Your task to perform on an android device: Open calendar and show me the fourth week of next month Image 0: 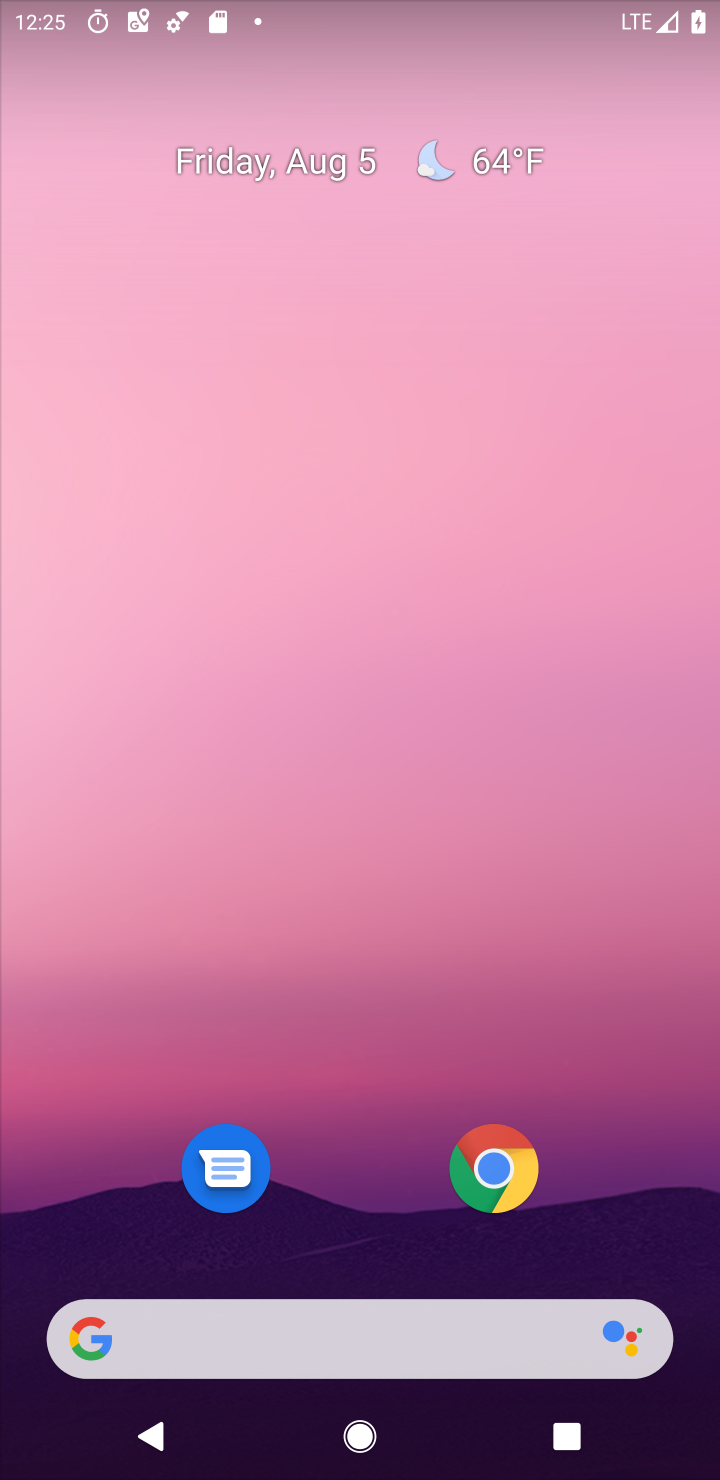
Step 0: drag from (326, 1232) to (351, 59)
Your task to perform on an android device: Open calendar and show me the fourth week of next month Image 1: 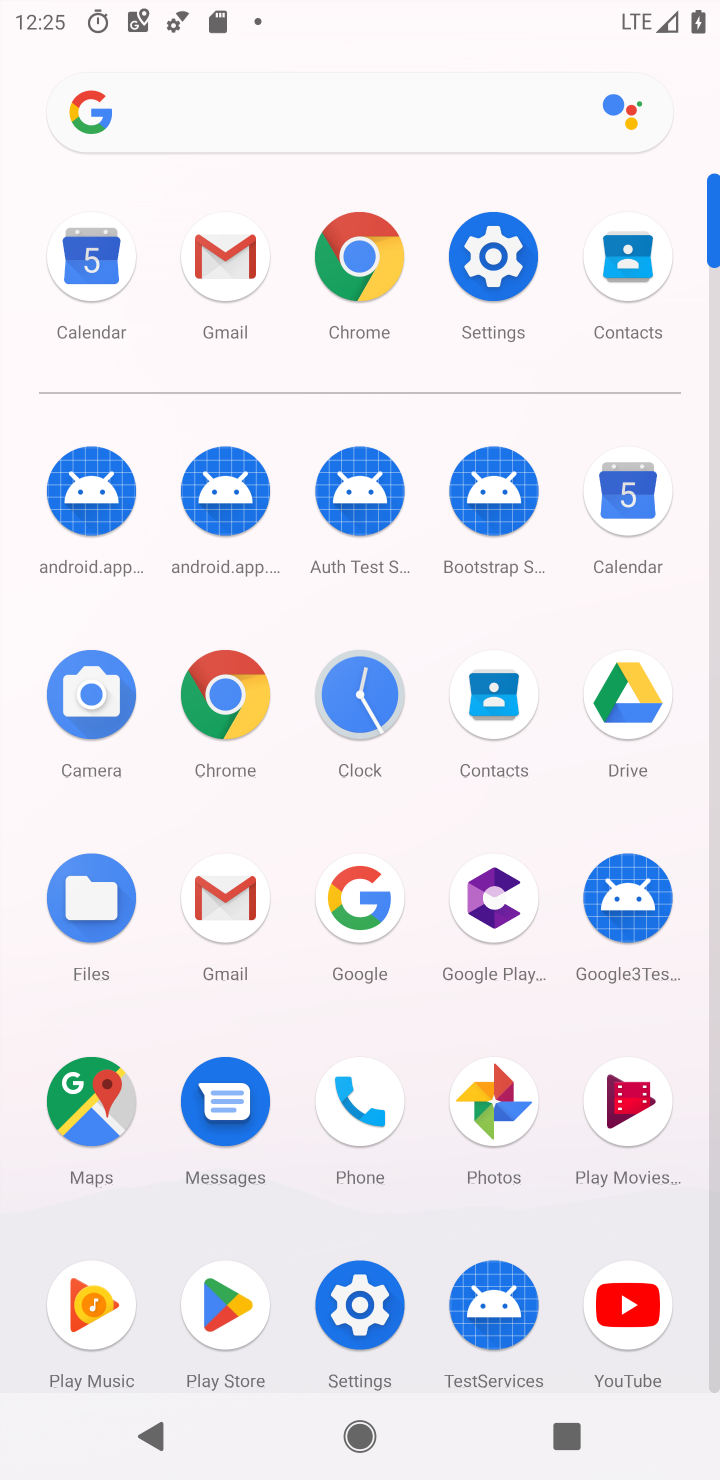
Step 1: click (613, 507)
Your task to perform on an android device: Open calendar and show me the fourth week of next month Image 2: 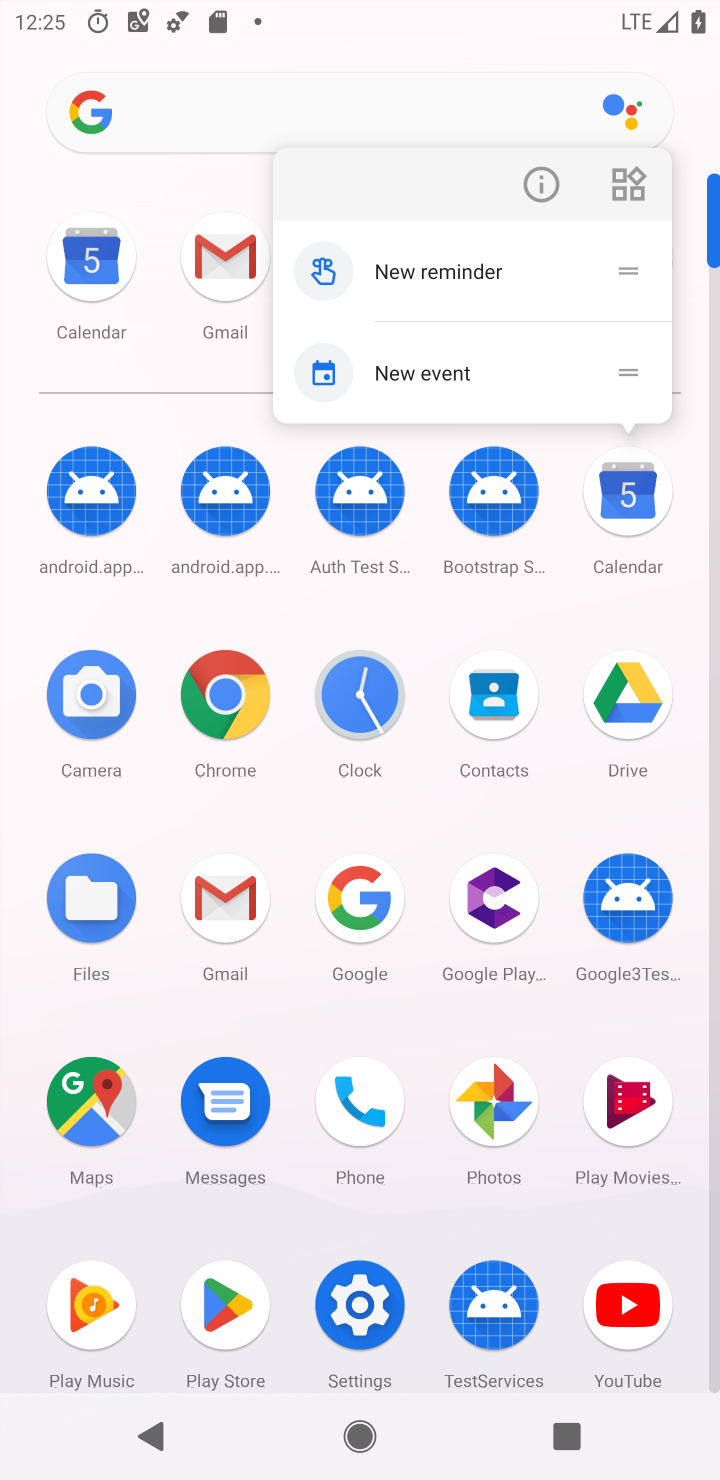
Step 2: click (631, 541)
Your task to perform on an android device: Open calendar and show me the fourth week of next month Image 3: 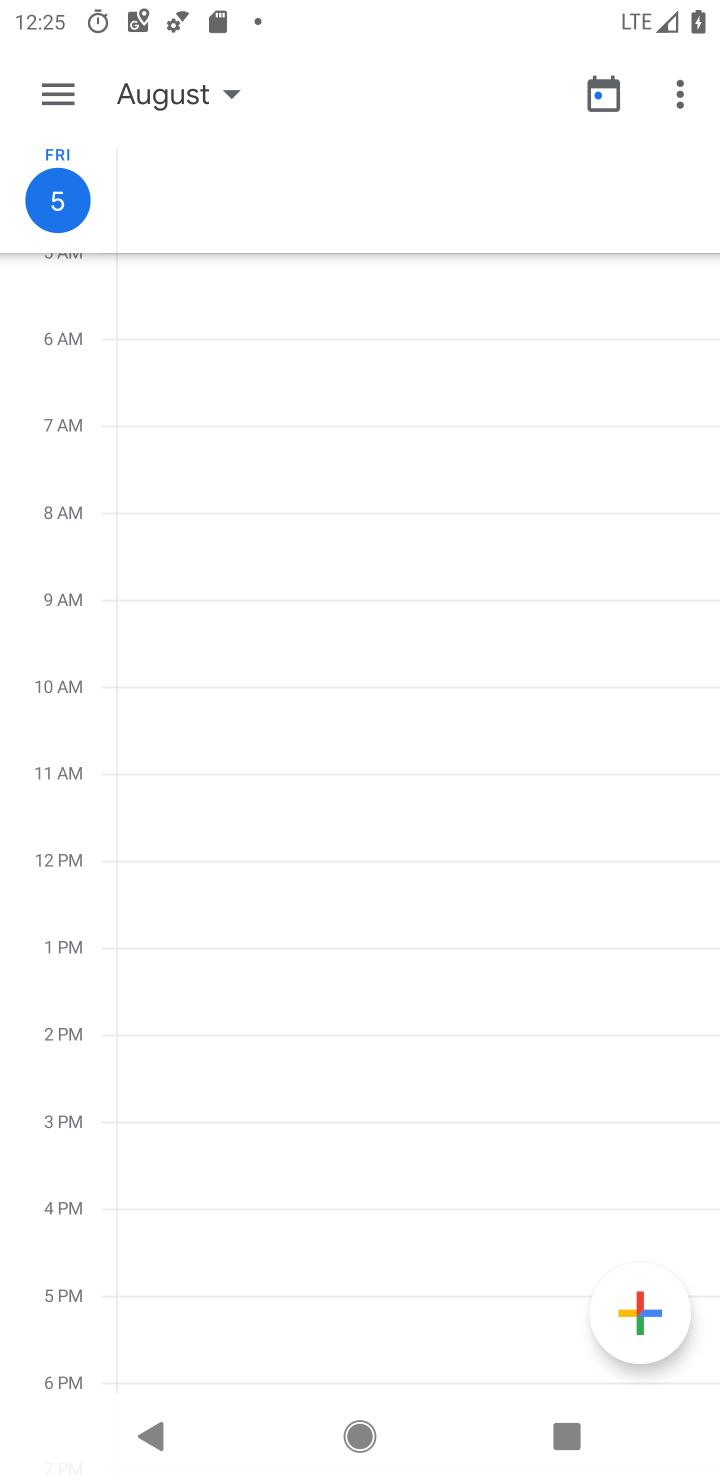
Step 3: click (629, 541)
Your task to perform on an android device: Open calendar and show me the fourth week of next month Image 4: 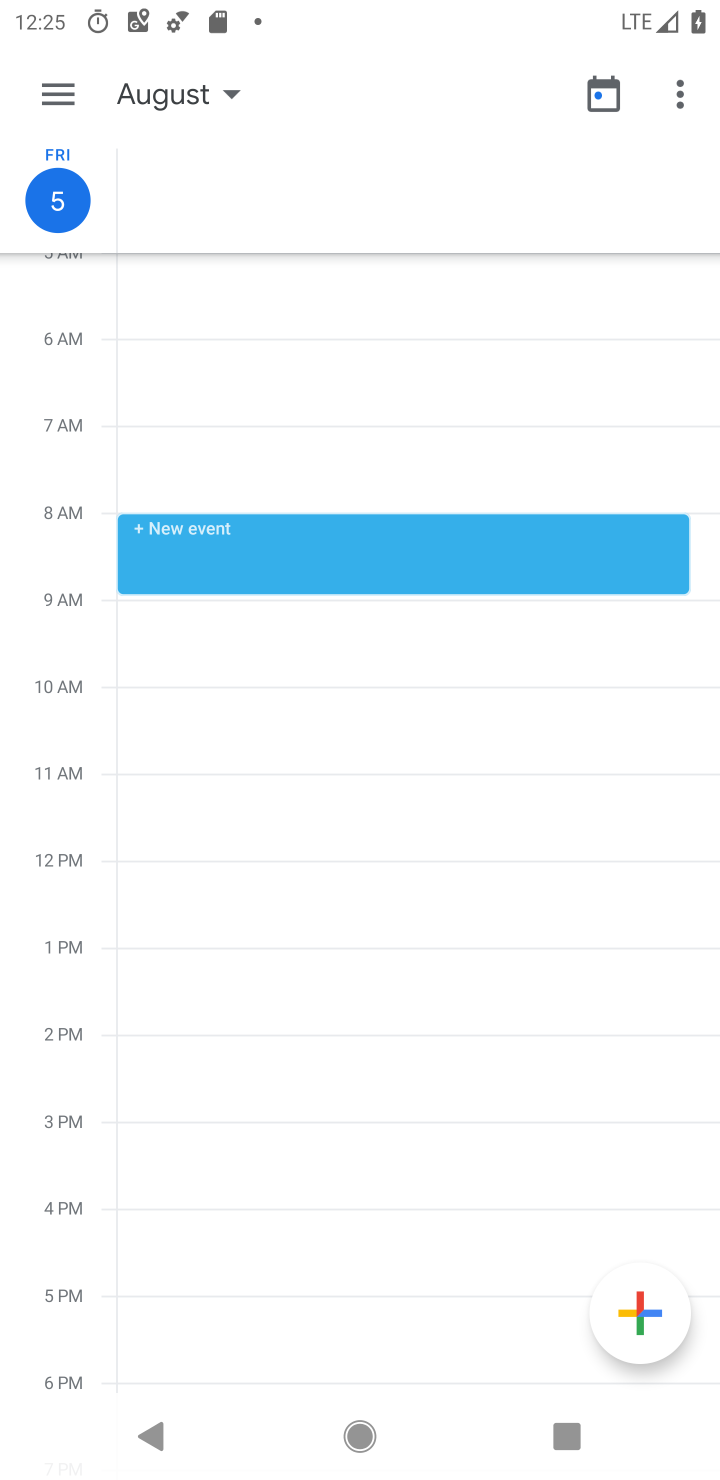
Step 4: click (58, 96)
Your task to perform on an android device: Open calendar and show me the fourth week of next month Image 5: 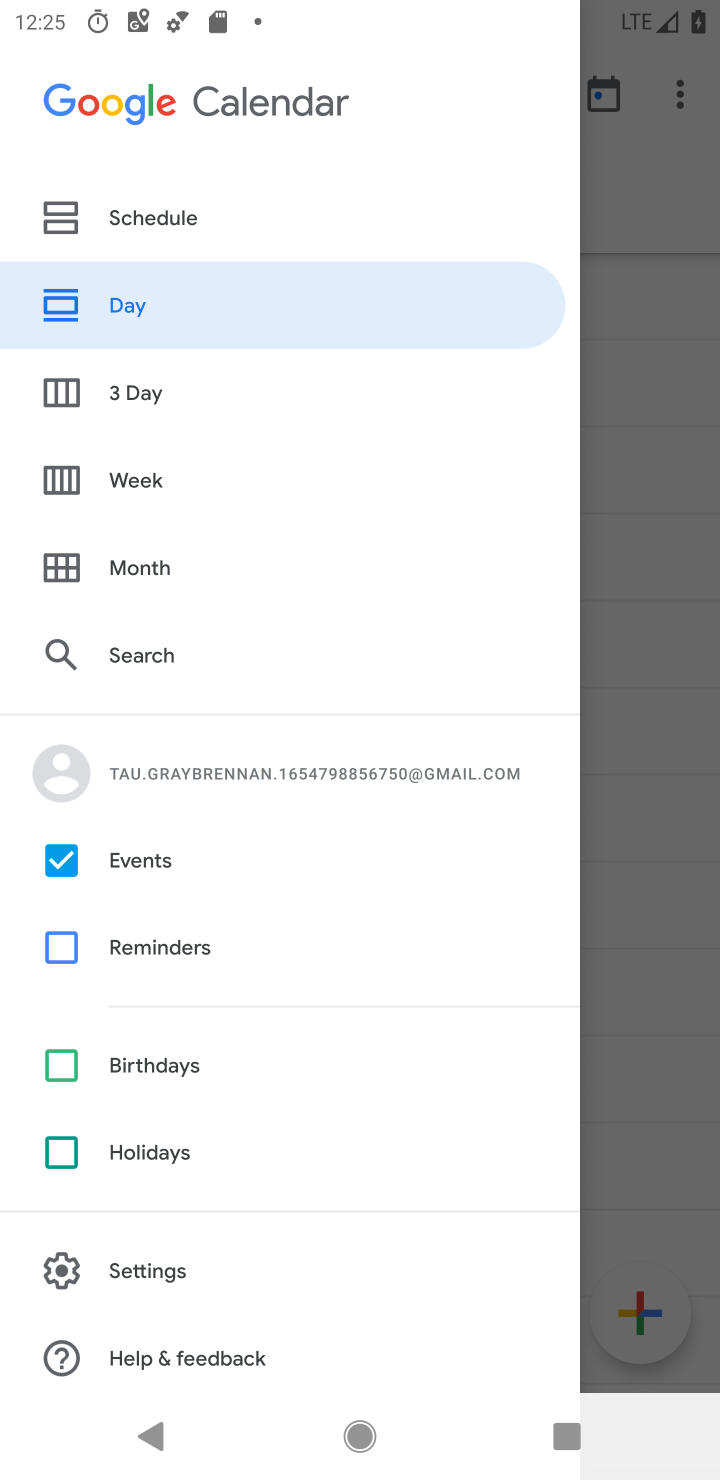
Step 5: click (159, 478)
Your task to perform on an android device: Open calendar and show me the fourth week of next month Image 6: 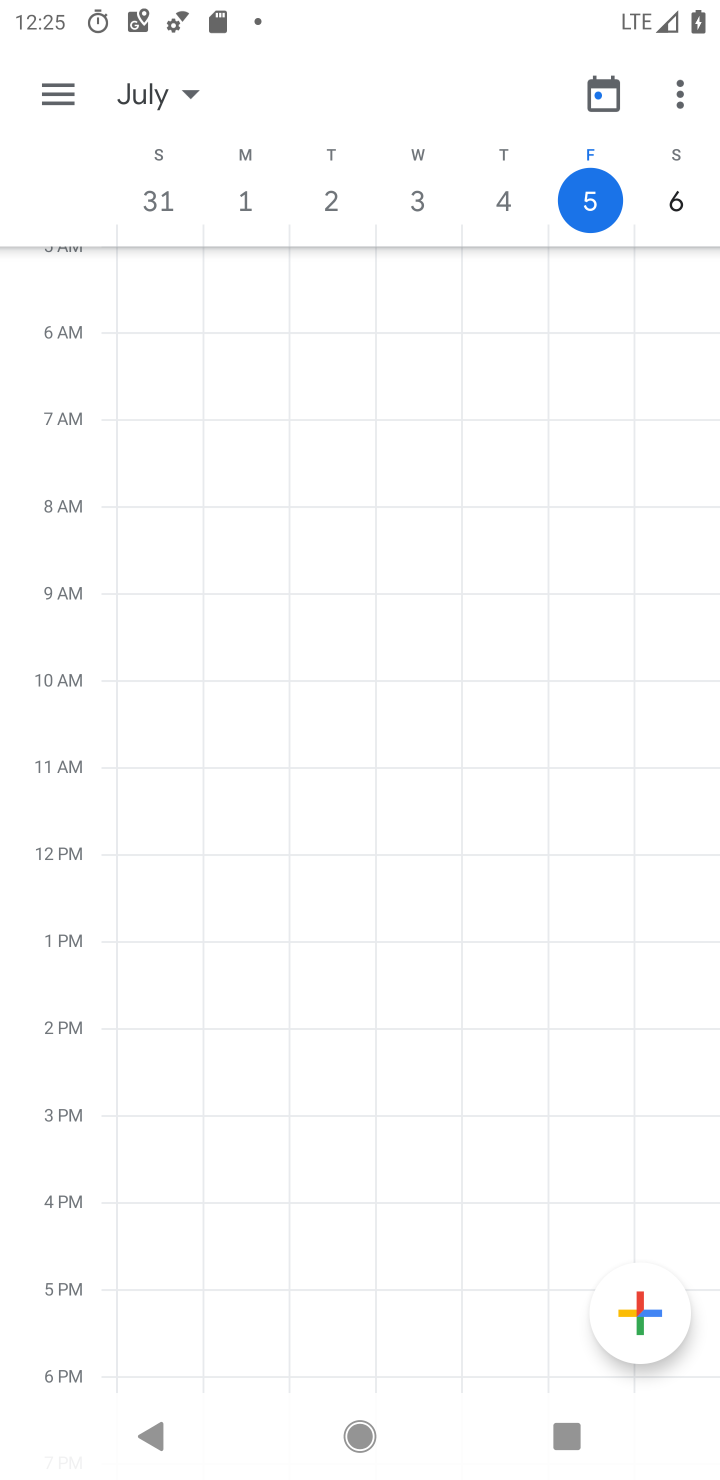
Step 6: drag from (643, 201) to (75, 204)
Your task to perform on an android device: Open calendar and show me the fourth week of next month Image 7: 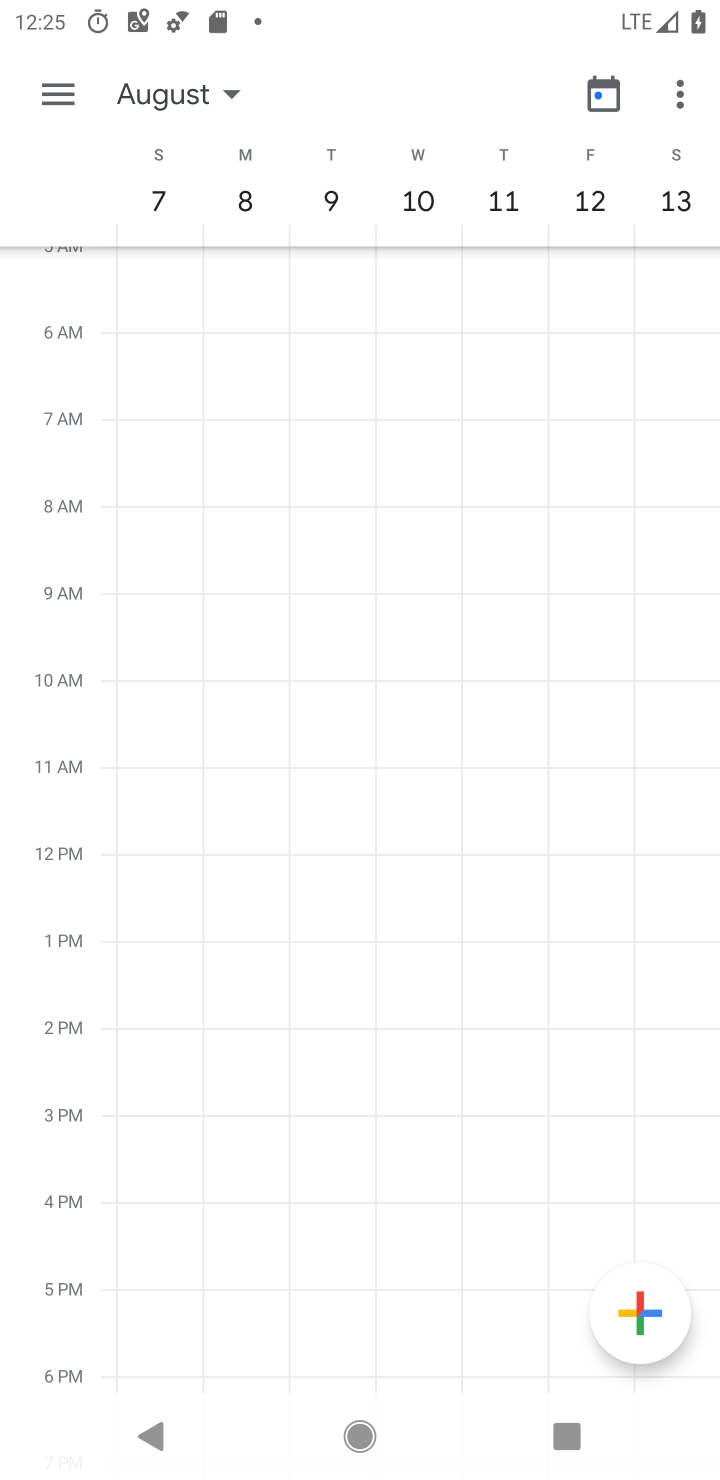
Step 7: click (198, 102)
Your task to perform on an android device: Open calendar and show me the fourth week of next month Image 8: 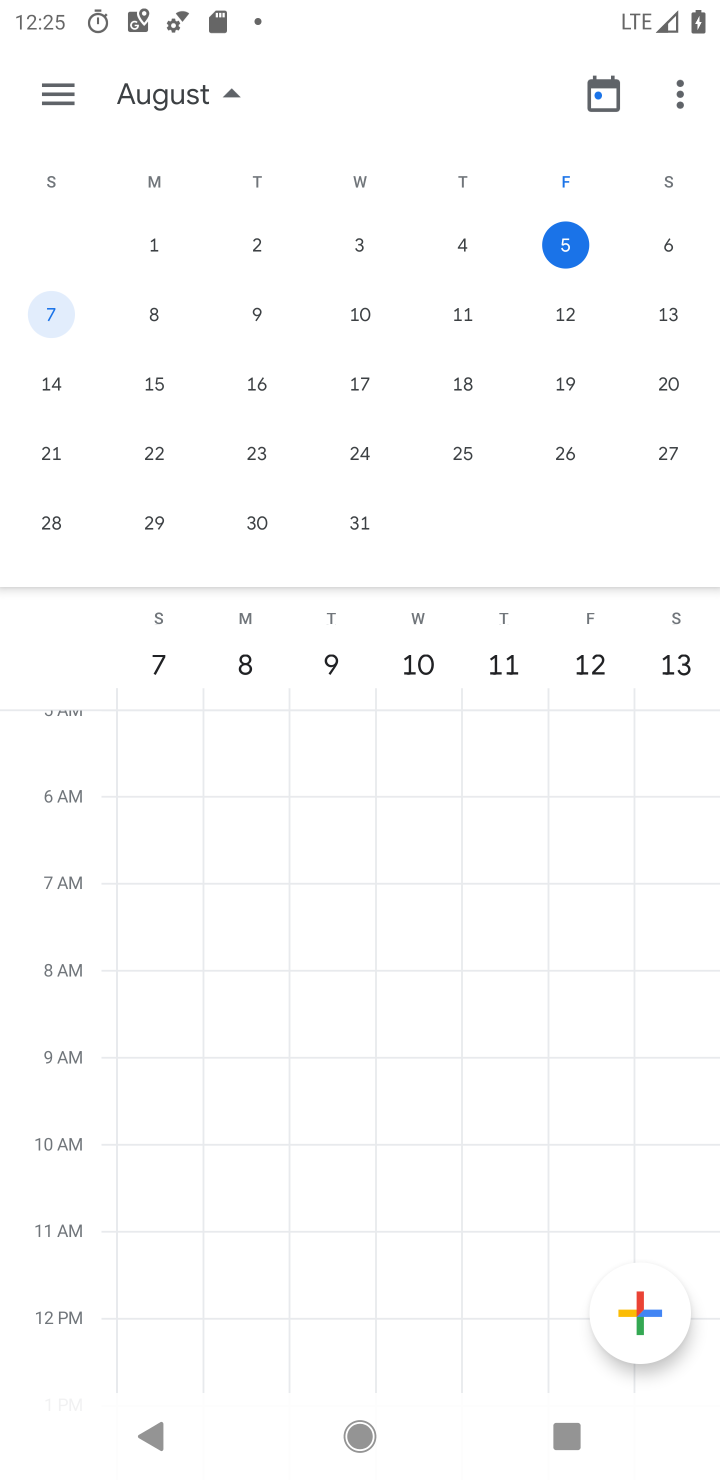
Step 8: drag from (559, 450) to (7, 408)
Your task to perform on an android device: Open calendar and show me the fourth week of next month Image 9: 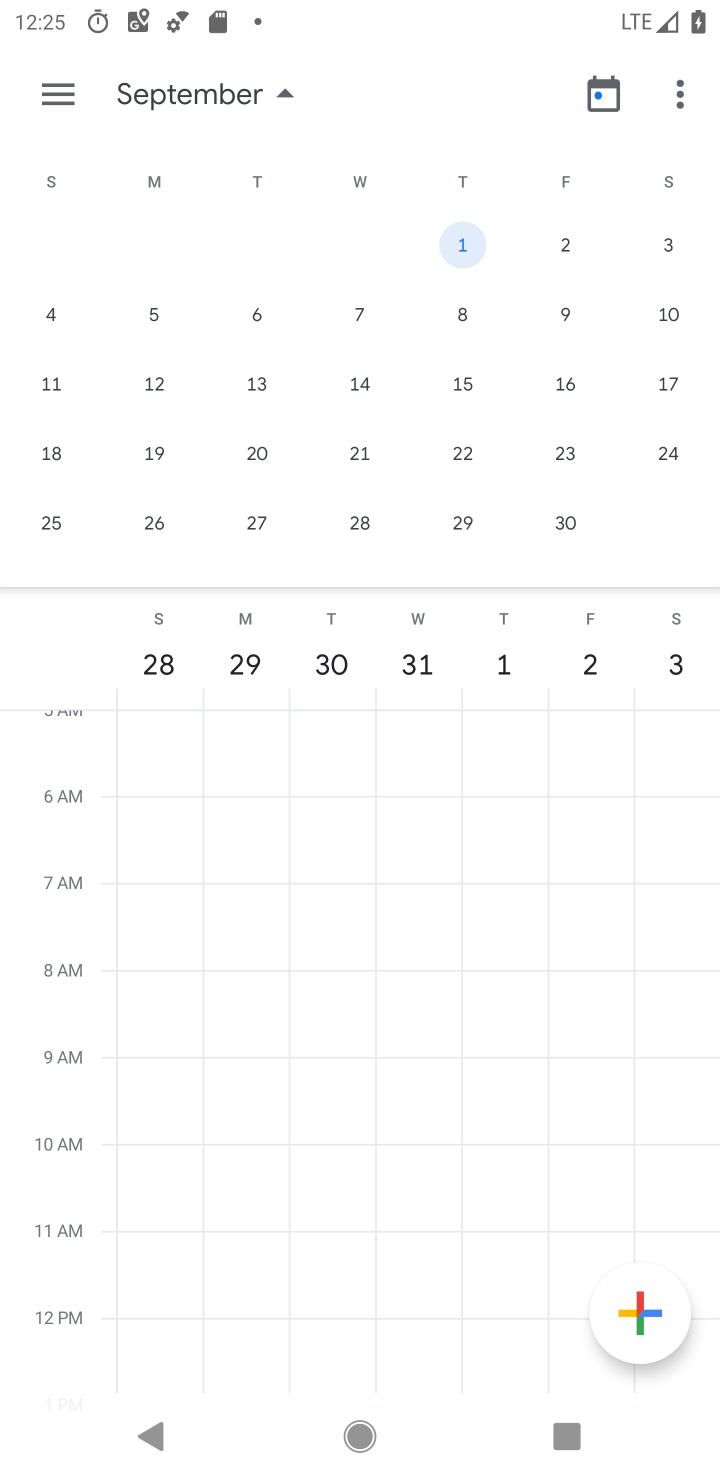
Step 9: click (249, 521)
Your task to perform on an android device: Open calendar and show me the fourth week of next month Image 10: 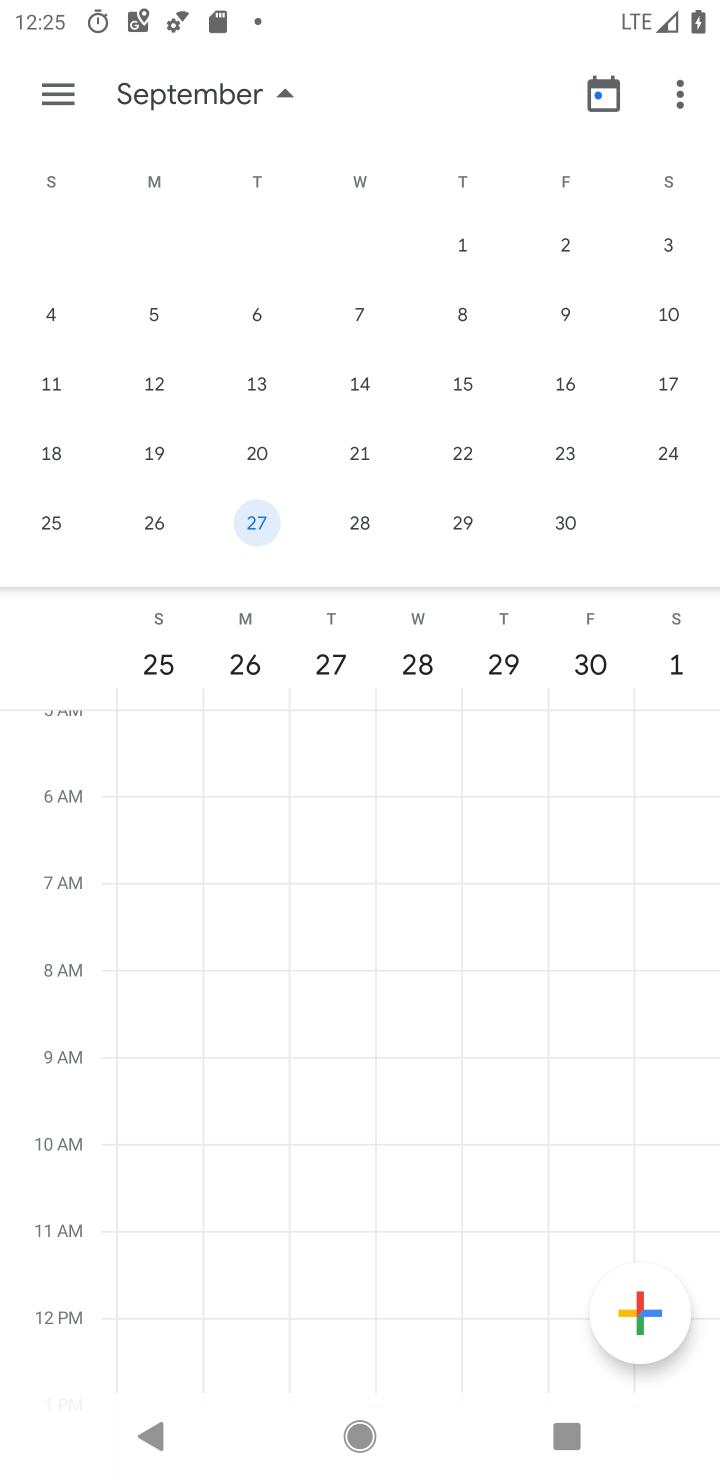
Step 10: task complete